Your task to perform on an android device: Search for vegetarian restaurants on Maps Image 0: 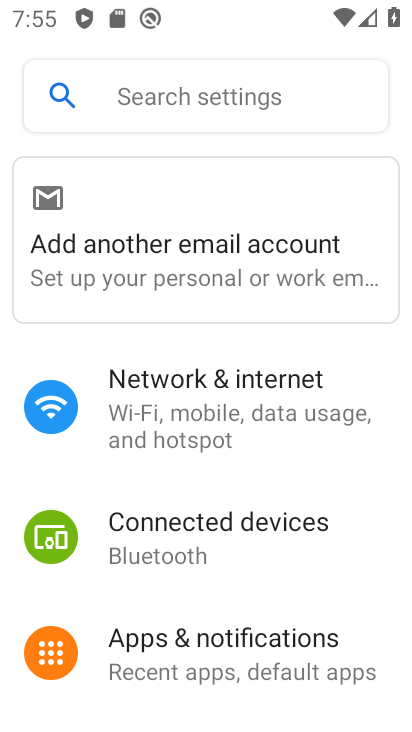
Step 0: press home button
Your task to perform on an android device: Search for vegetarian restaurants on Maps Image 1: 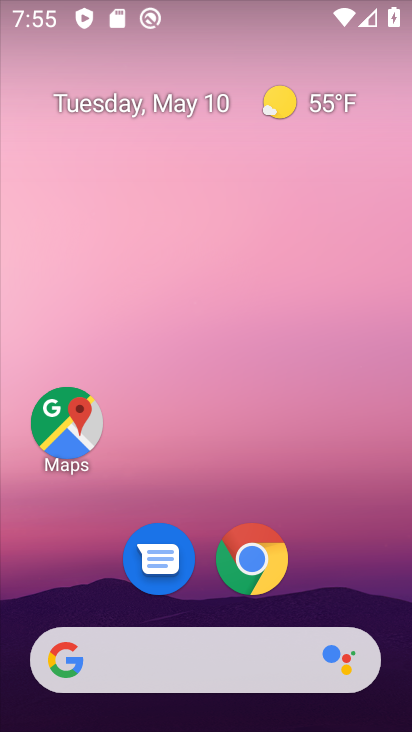
Step 1: drag from (213, 722) to (184, 218)
Your task to perform on an android device: Search for vegetarian restaurants on Maps Image 2: 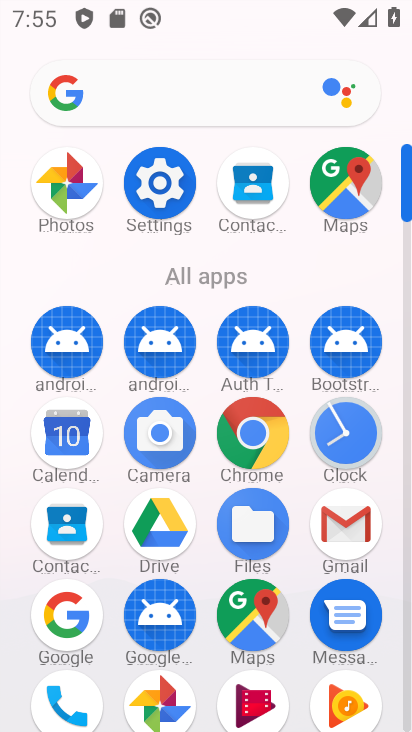
Step 2: click (243, 608)
Your task to perform on an android device: Search for vegetarian restaurants on Maps Image 3: 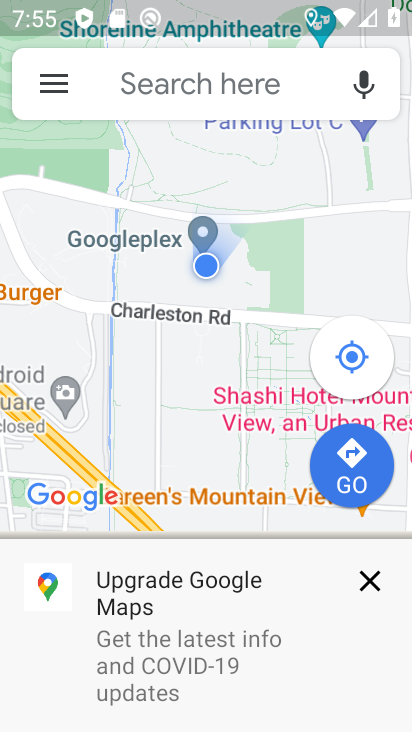
Step 3: click (186, 93)
Your task to perform on an android device: Search for vegetarian restaurants on Maps Image 4: 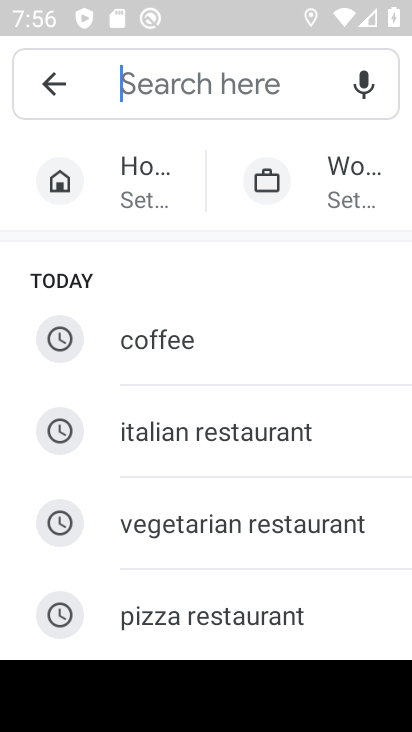
Step 4: type "vegetarian  restaurants"
Your task to perform on an android device: Search for vegetarian restaurants on Maps Image 5: 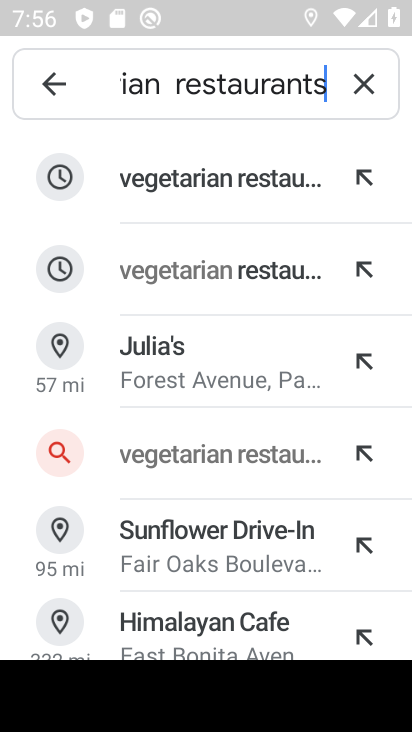
Step 5: click (202, 174)
Your task to perform on an android device: Search for vegetarian restaurants on Maps Image 6: 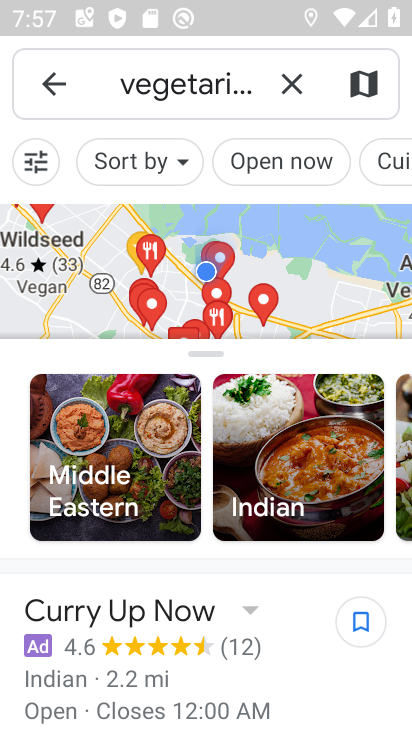
Step 6: task complete